Your task to perform on an android device: Open Youtube and go to the subscriptions tab Image 0: 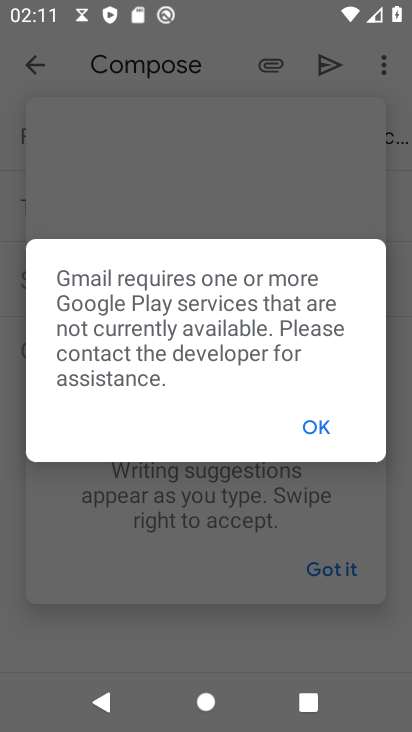
Step 0: press home button
Your task to perform on an android device: Open Youtube and go to the subscriptions tab Image 1: 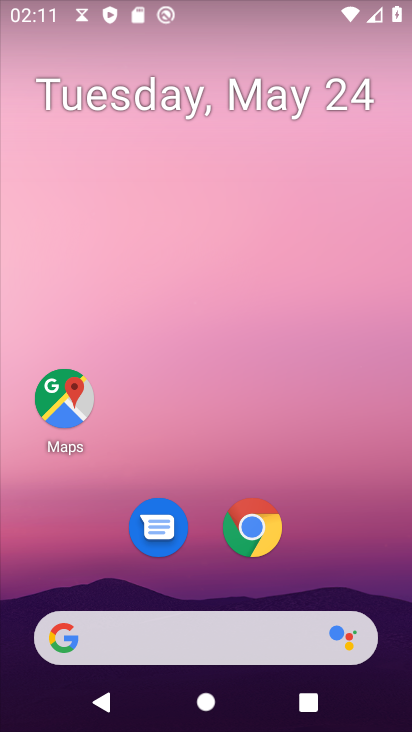
Step 1: drag from (167, 627) to (371, 85)
Your task to perform on an android device: Open Youtube and go to the subscriptions tab Image 2: 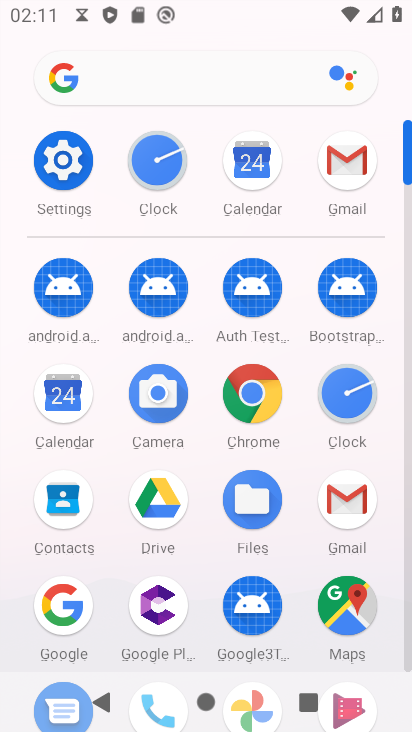
Step 2: drag from (219, 613) to (379, 43)
Your task to perform on an android device: Open Youtube and go to the subscriptions tab Image 3: 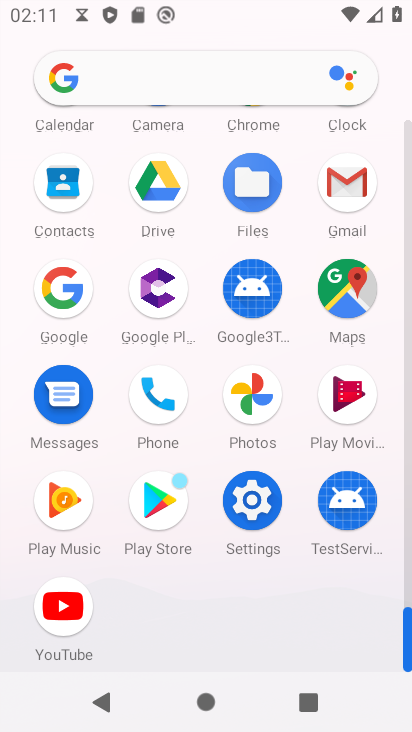
Step 3: click (66, 611)
Your task to perform on an android device: Open Youtube and go to the subscriptions tab Image 4: 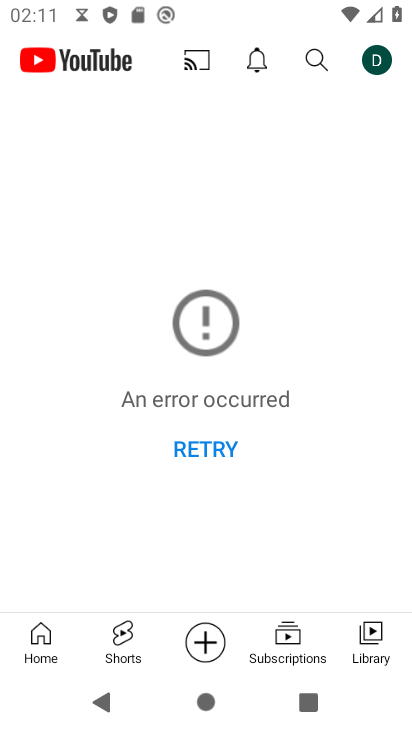
Step 4: click (206, 446)
Your task to perform on an android device: Open Youtube and go to the subscriptions tab Image 5: 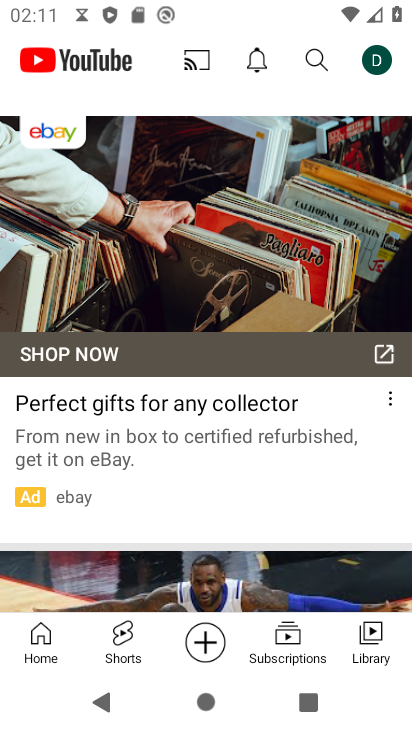
Step 5: click (296, 641)
Your task to perform on an android device: Open Youtube and go to the subscriptions tab Image 6: 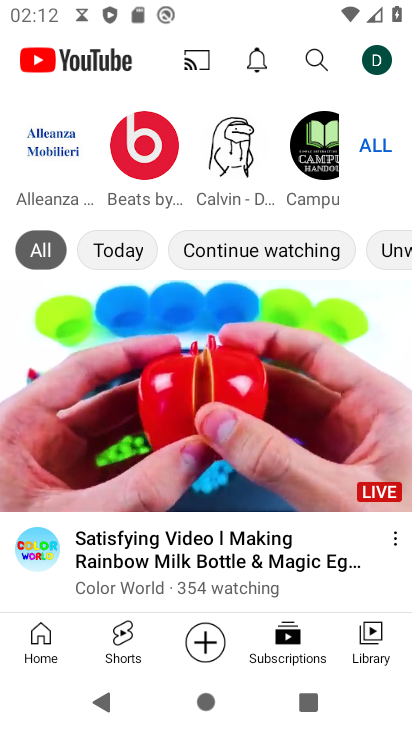
Step 6: task complete